Your task to perform on an android device: Open Yahoo.com Image 0: 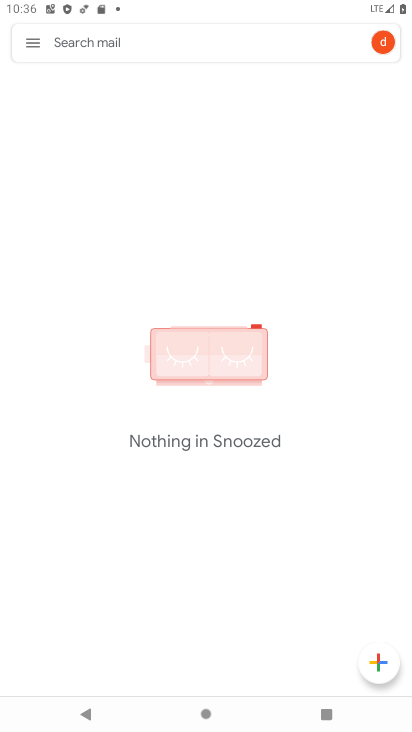
Step 0: press home button
Your task to perform on an android device: Open Yahoo.com Image 1: 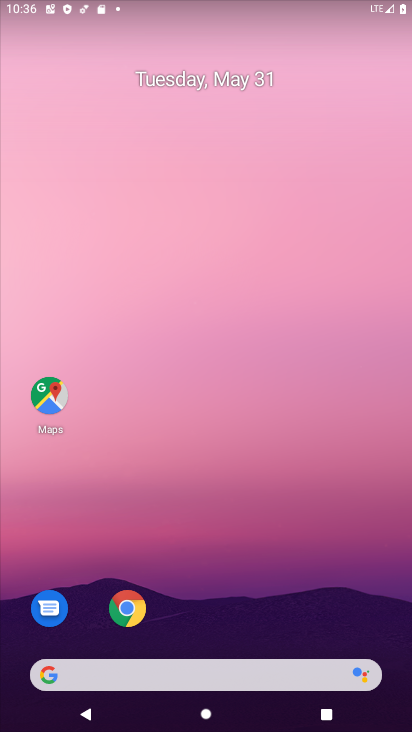
Step 1: click (132, 601)
Your task to perform on an android device: Open Yahoo.com Image 2: 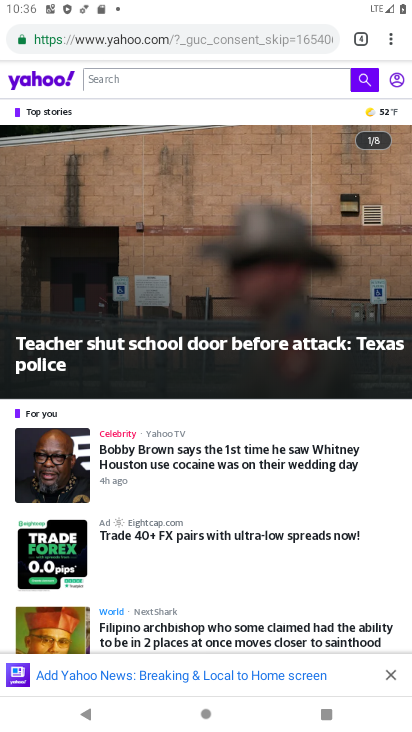
Step 2: task complete